Your task to perform on an android device: Turn off the flashlight Image 0: 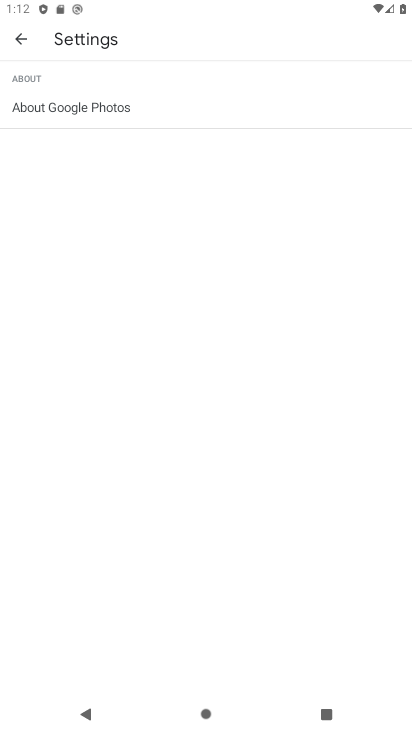
Step 0: press home button
Your task to perform on an android device: Turn off the flashlight Image 1: 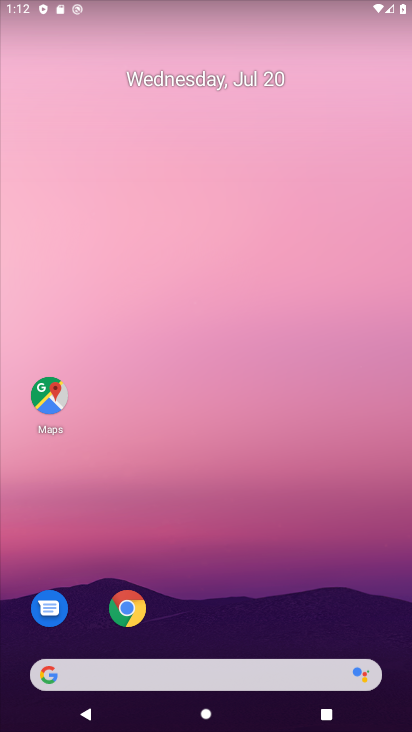
Step 1: drag from (301, 630) to (314, 120)
Your task to perform on an android device: Turn off the flashlight Image 2: 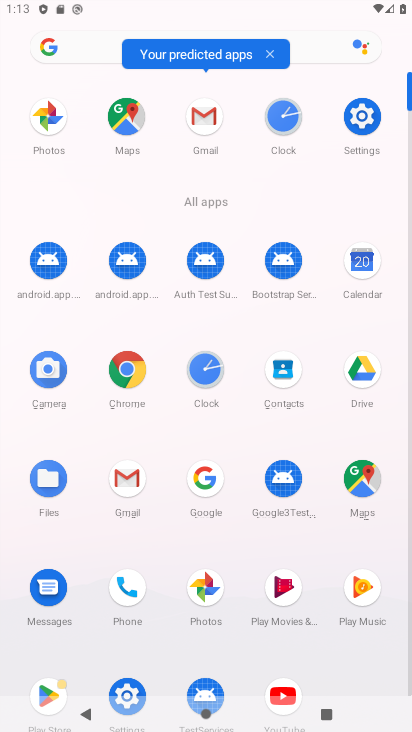
Step 2: click (364, 153)
Your task to perform on an android device: Turn off the flashlight Image 3: 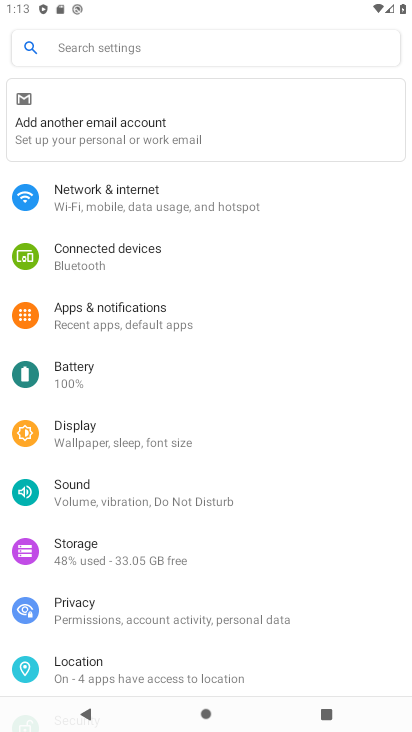
Step 3: click (193, 544)
Your task to perform on an android device: Turn off the flashlight Image 4: 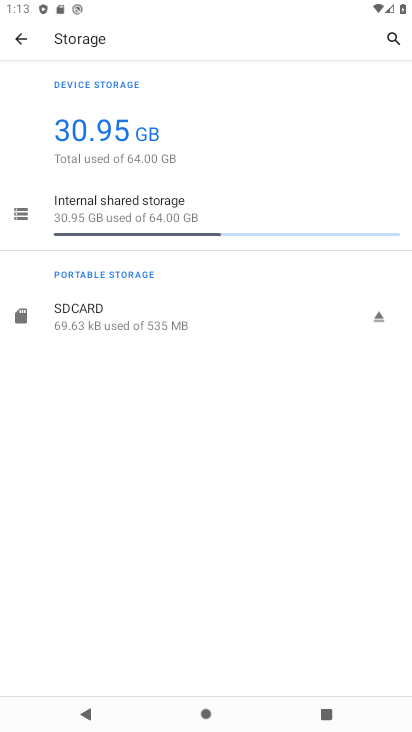
Step 4: task complete